Your task to perform on an android device: find which apps use the phone's location Image 0: 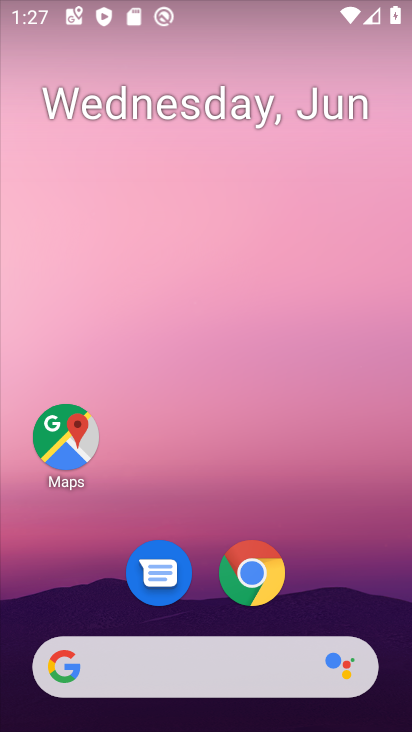
Step 0: drag from (345, 529) to (332, 121)
Your task to perform on an android device: find which apps use the phone's location Image 1: 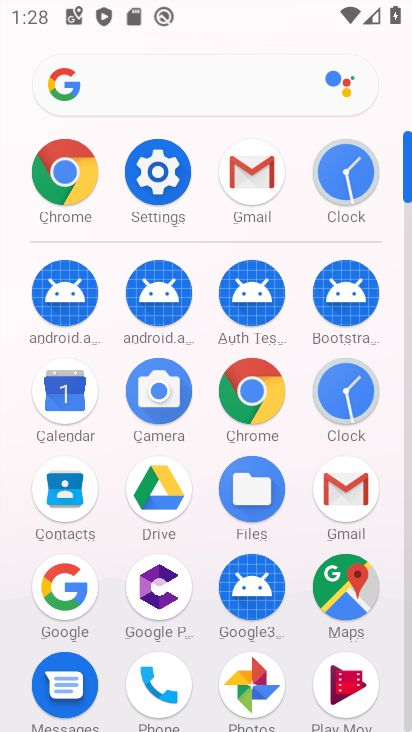
Step 1: click (131, 171)
Your task to perform on an android device: find which apps use the phone's location Image 2: 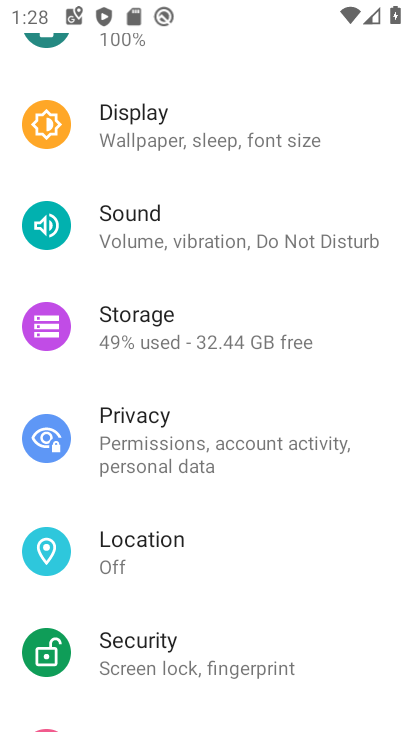
Step 2: click (178, 529)
Your task to perform on an android device: find which apps use the phone's location Image 3: 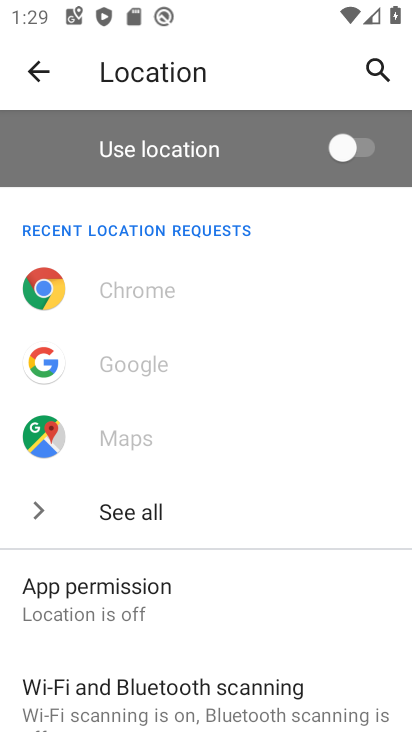
Step 3: task complete